Your task to perform on an android device: open sync settings in chrome Image 0: 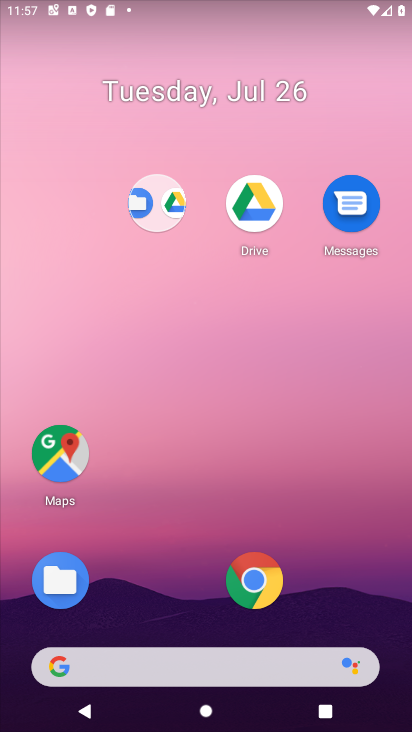
Step 0: click (266, 590)
Your task to perform on an android device: open sync settings in chrome Image 1: 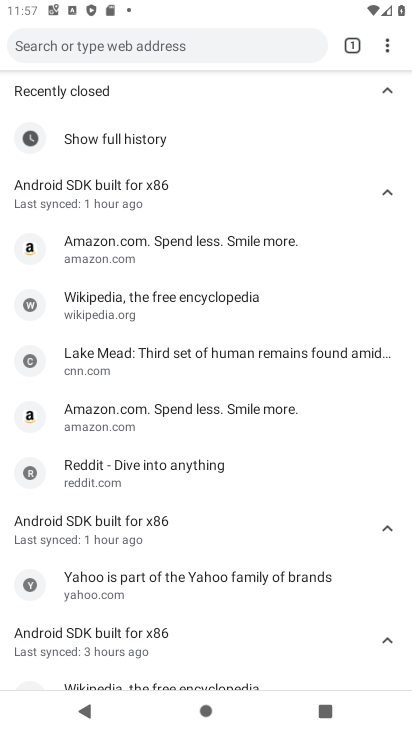
Step 1: click (397, 41)
Your task to perform on an android device: open sync settings in chrome Image 2: 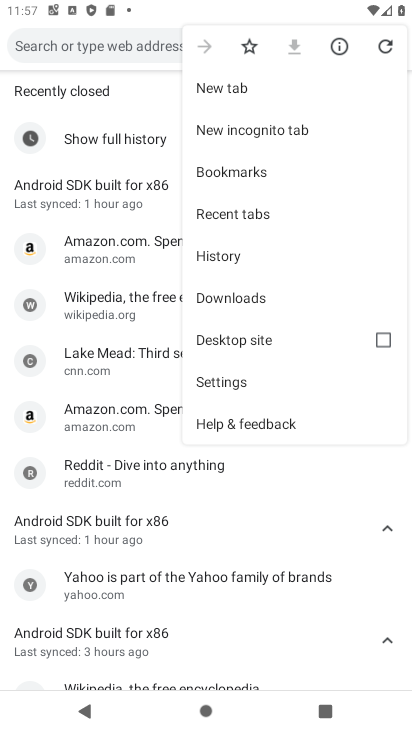
Step 2: click (218, 384)
Your task to perform on an android device: open sync settings in chrome Image 3: 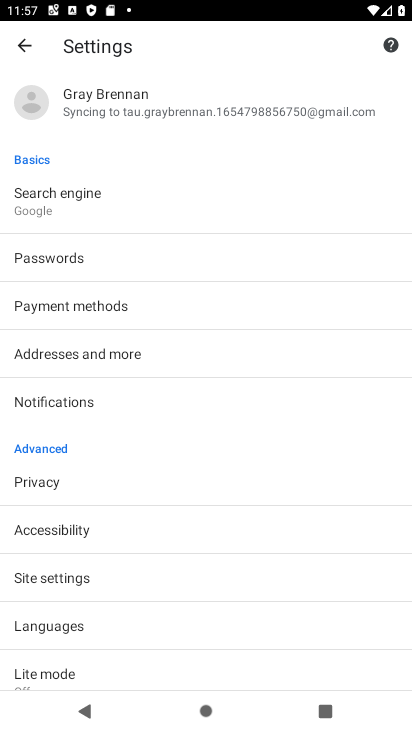
Step 3: click (69, 107)
Your task to perform on an android device: open sync settings in chrome Image 4: 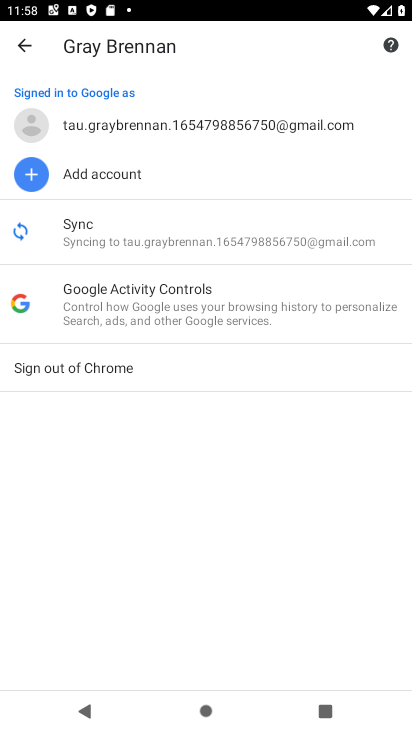
Step 4: click (130, 249)
Your task to perform on an android device: open sync settings in chrome Image 5: 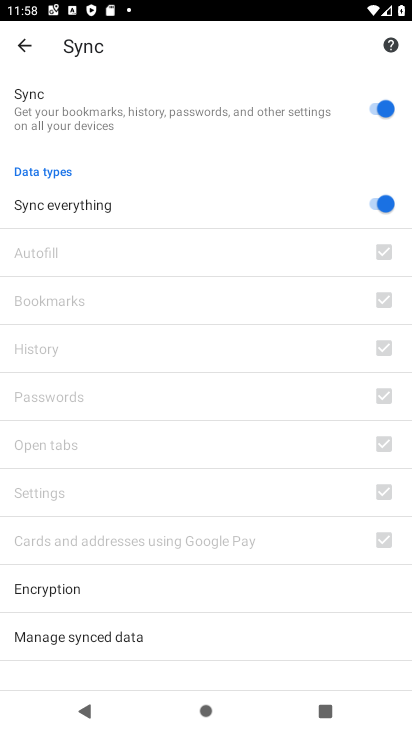
Step 5: task complete